Your task to perform on an android device: Show me productivity apps on the Play Store Image 0: 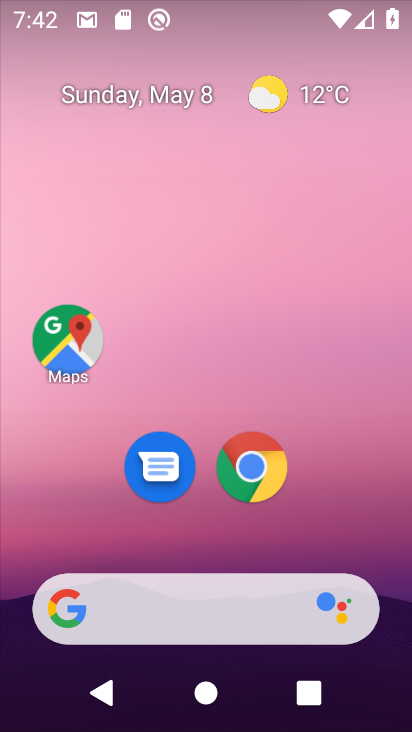
Step 0: drag from (301, 580) to (271, 0)
Your task to perform on an android device: Show me productivity apps on the Play Store Image 1: 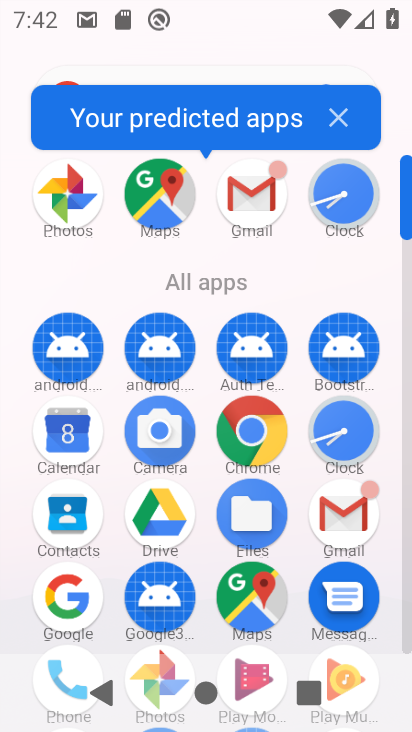
Step 1: drag from (262, 628) to (246, 199)
Your task to perform on an android device: Show me productivity apps on the Play Store Image 2: 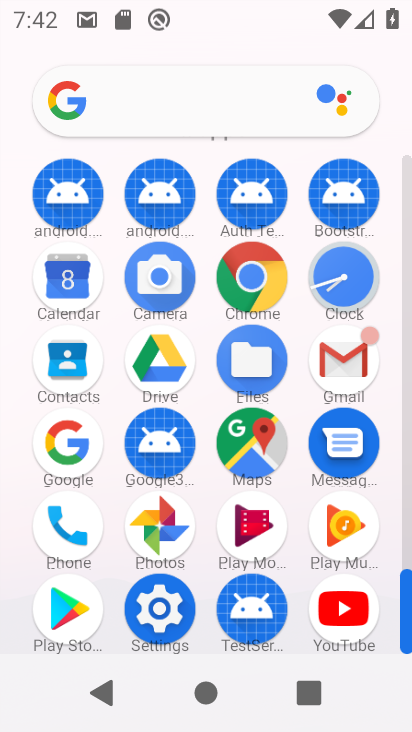
Step 2: click (58, 632)
Your task to perform on an android device: Show me productivity apps on the Play Store Image 3: 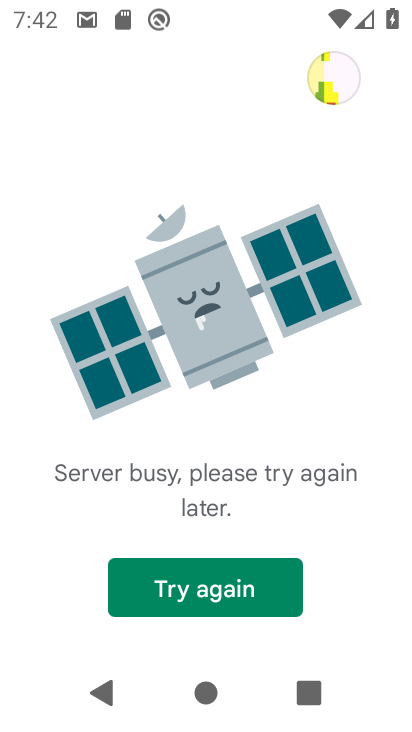
Step 3: click (255, 612)
Your task to perform on an android device: Show me productivity apps on the Play Store Image 4: 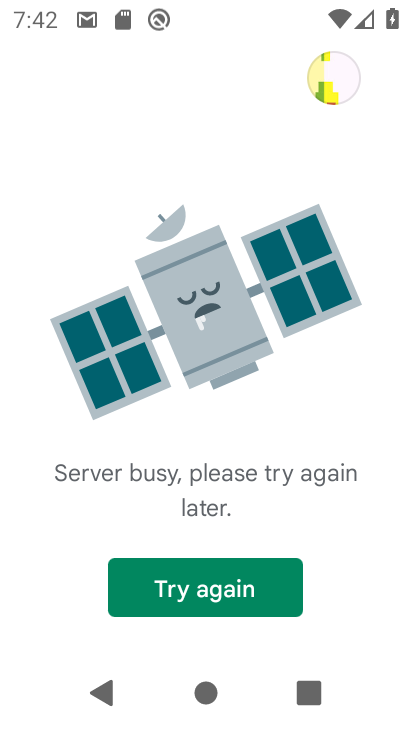
Step 4: click (252, 606)
Your task to perform on an android device: Show me productivity apps on the Play Store Image 5: 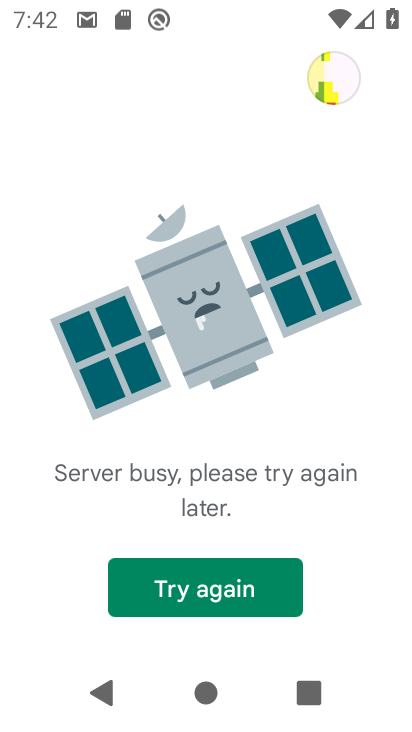
Step 5: task complete